Your task to perform on an android device: turn vacation reply on in the gmail app Image 0: 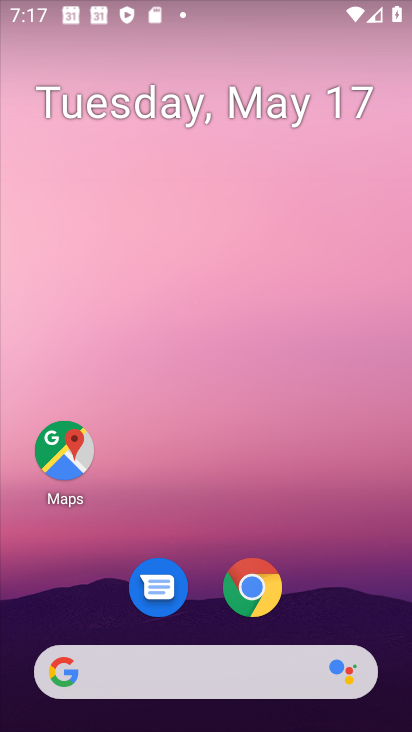
Step 0: drag from (296, 694) to (212, 306)
Your task to perform on an android device: turn vacation reply on in the gmail app Image 1: 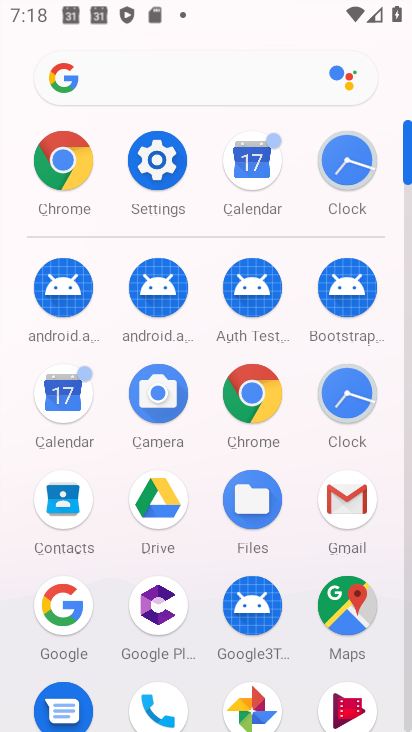
Step 1: click (328, 523)
Your task to perform on an android device: turn vacation reply on in the gmail app Image 2: 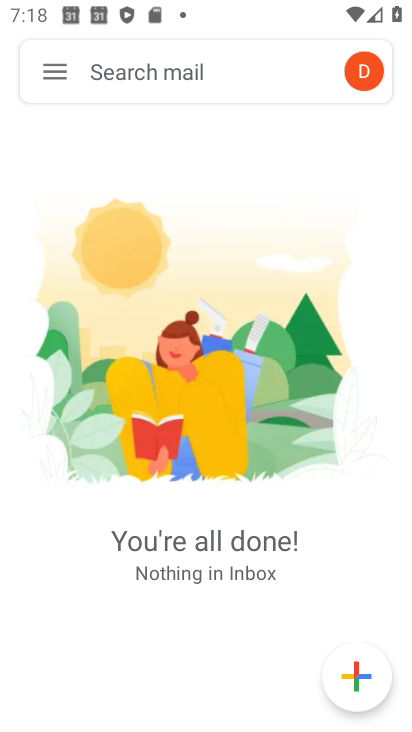
Step 2: click (37, 74)
Your task to perform on an android device: turn vacation reply on in the gmail app Image 3: 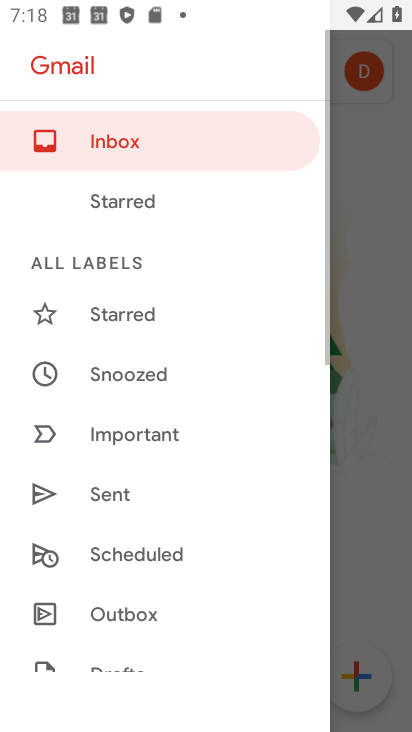
Step 3: drag from (131, 578) to (206, 346)
Your task to perform on an android device: turn vacation reply on in the gmail app Image 4: 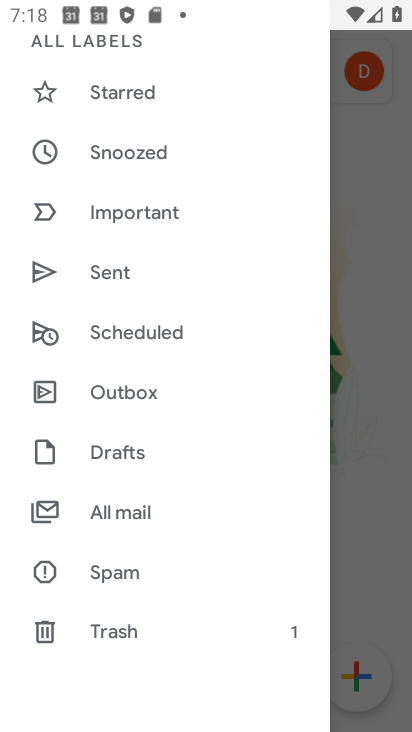
Step 4: drag from (159, 536) to (227, 314)
Your task to perform on an android device: turn vacation reply on in the gmail app Image 5: 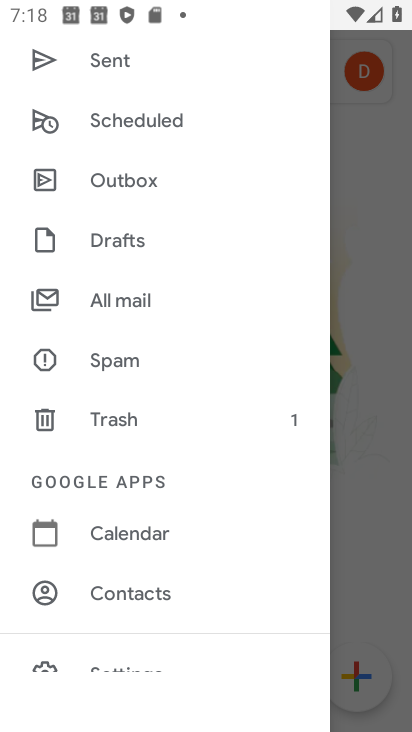
Step 5: drag from (146, 559) to (172, 488)
Your task to perform on an android device: turn vacation reply on in the gmail app Image 6: 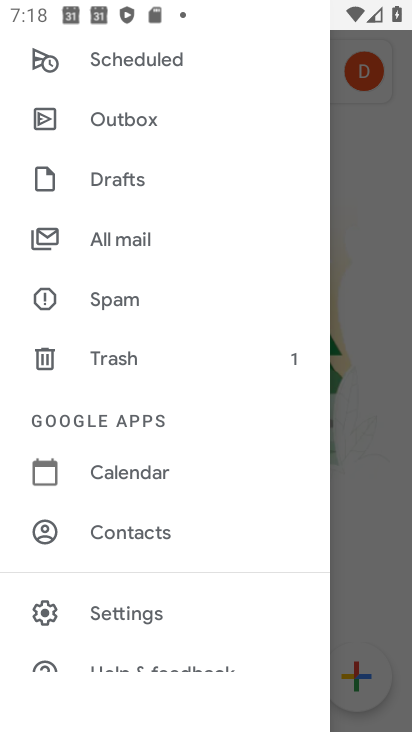
Step 6: click (133, 613)
Your task to perform on an android device: turn vacation reply on in the gmail app Image 7: 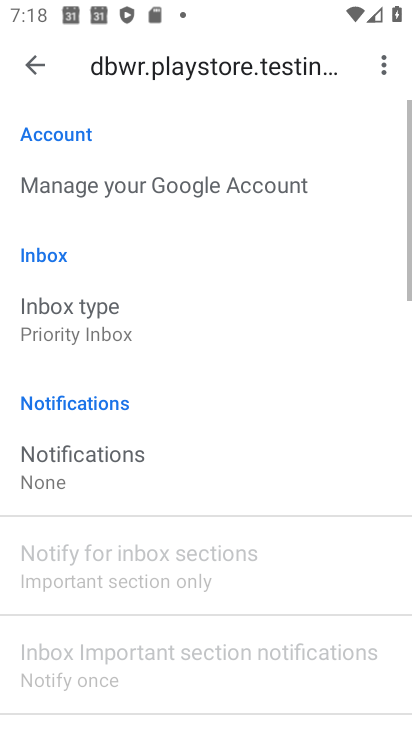
Step 7: drag from (147, 619) to (165, 274)
Your task to perform on an android device: turn vacation reply on in the gmail app Image 8: 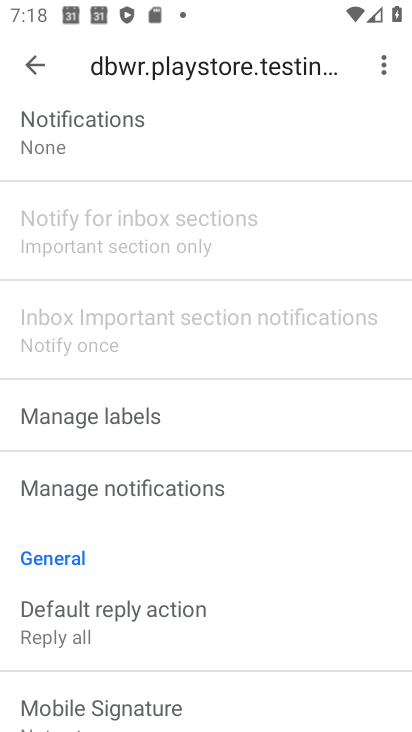
Step 8: drag from (164, 546) to (227, 335)
Your task to perform on an android device: turn vacation reply on in the gmail app Image 9: 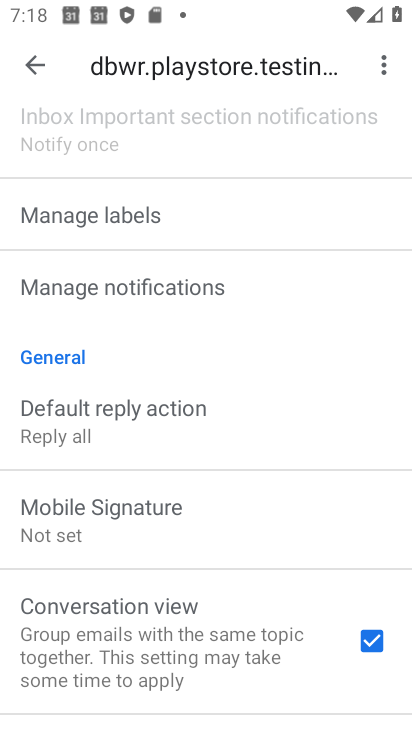
Step 9: drag from (182, 544) to (272, 287)
Your task to perform on an android device: turn vacation reply on in the gmail app Image 10: 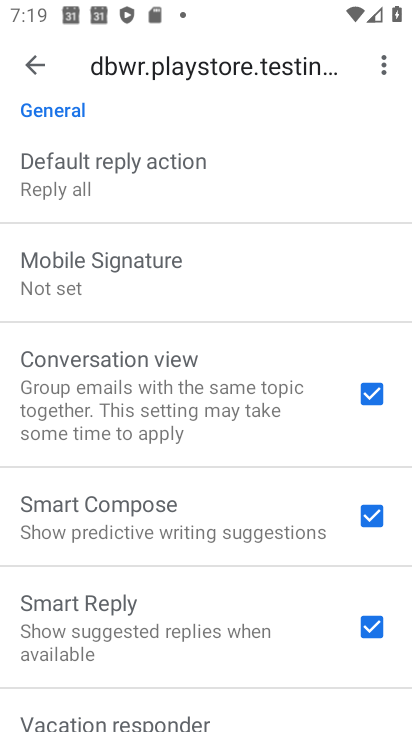
Step 10: drag from (181, 528) to (263, 312)
Your task to perform on an android device: turn vacation reply on in the gmail app Image 11: 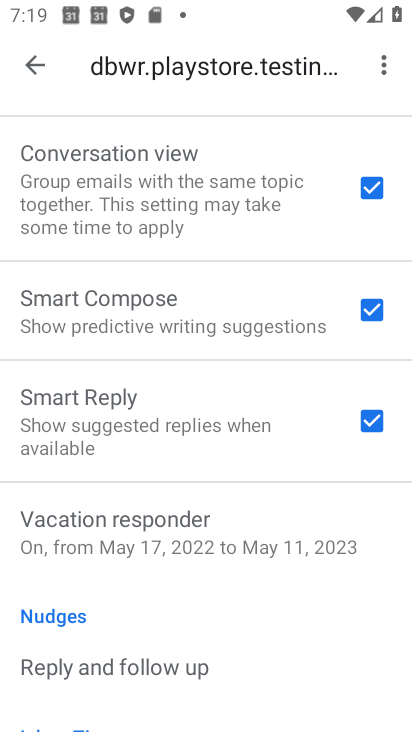
Step 11: click (125, 524)
Your task to perform on an android device: turn vacation reply on in the gmail app Image 12: 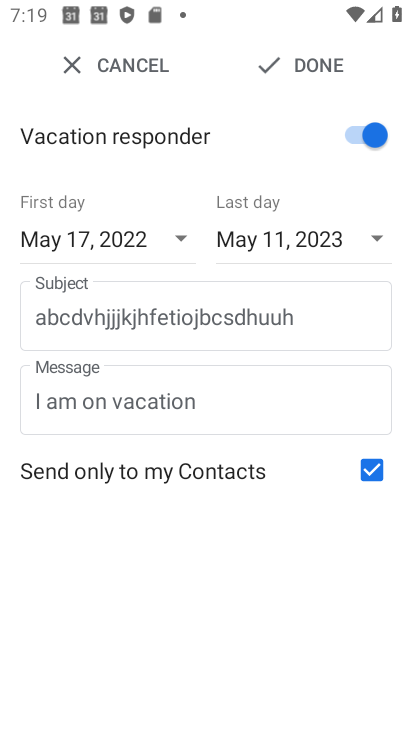
Step 12: task complete